Your task to perform on an android device: Open the Play Movies app and select the watchlist tab. Image 0: 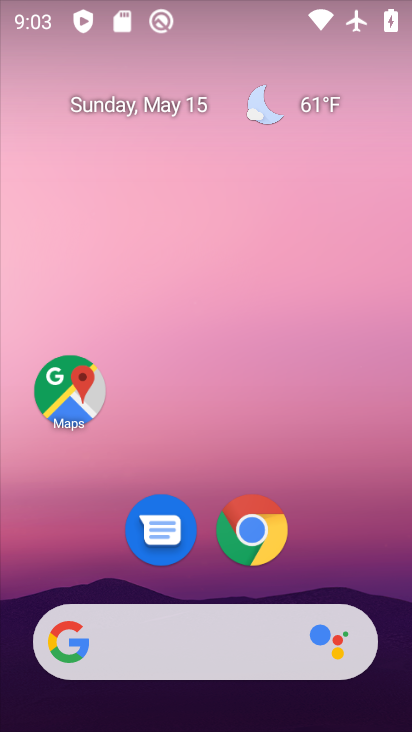
Step 0: drag from (223, 728) to (164, 202)
Your task to perform on an android device: Open the Play Movies app and select the watchlist tab. Image 1: 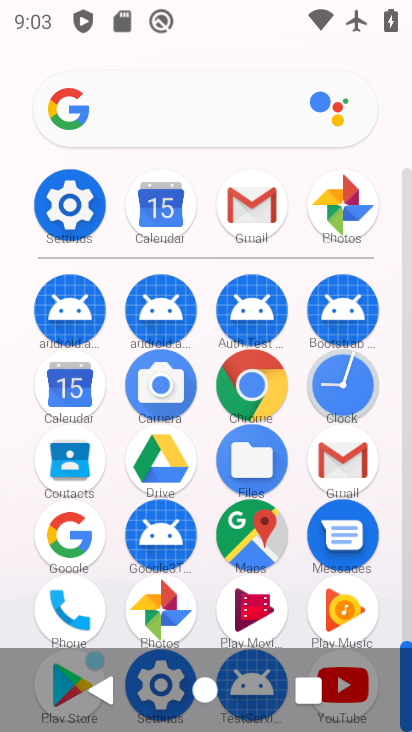
Step 1: drag from (215, 592) to (204, 269)
Your task to perform on an android device: Open the Play Movies app and select the watchlist tab. Image 2: 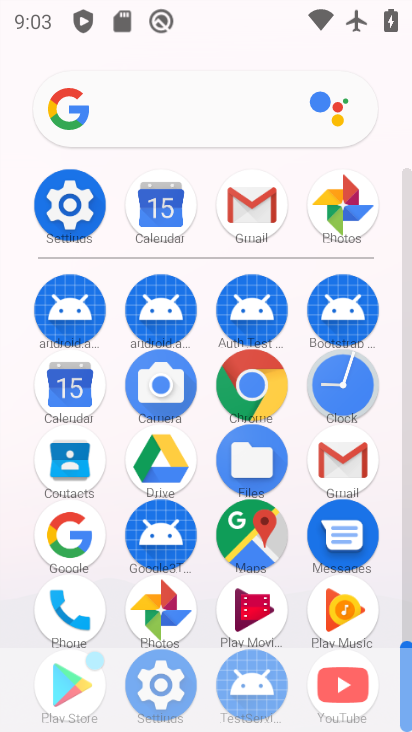
Step 2: click (258, 605)
Your task to perform on an android device: Open the Play Movies app and select the watchlist tab. Image 3: 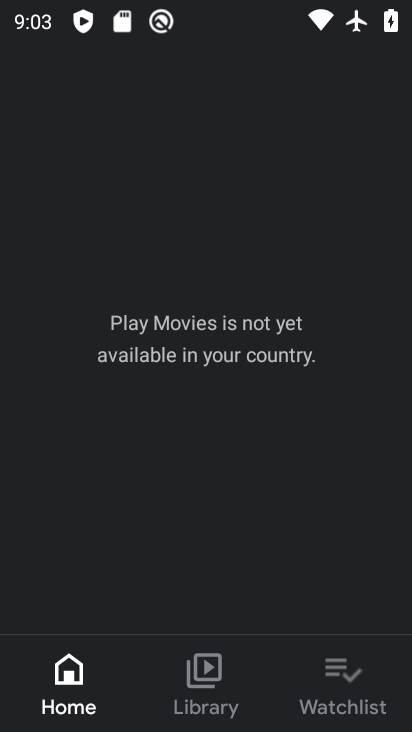
Step 3: click (354, 678)
Your task to perform on an android device: Open the Play Movies app and select the watchlist tab. Image 4: 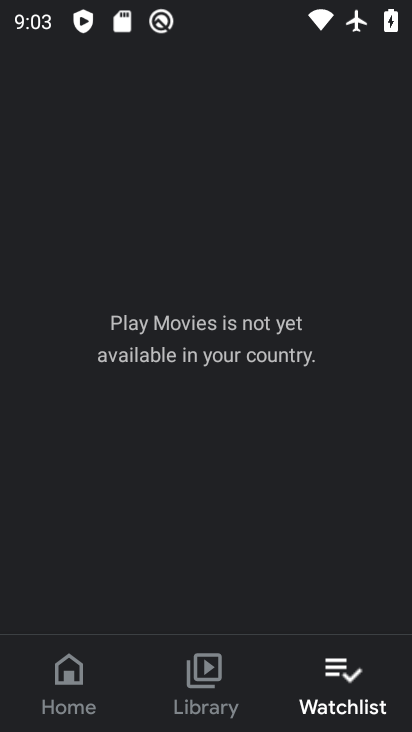
Step 4: task complete